Your task to perform on an android device: Show me popular videos on Youtube Image 0: 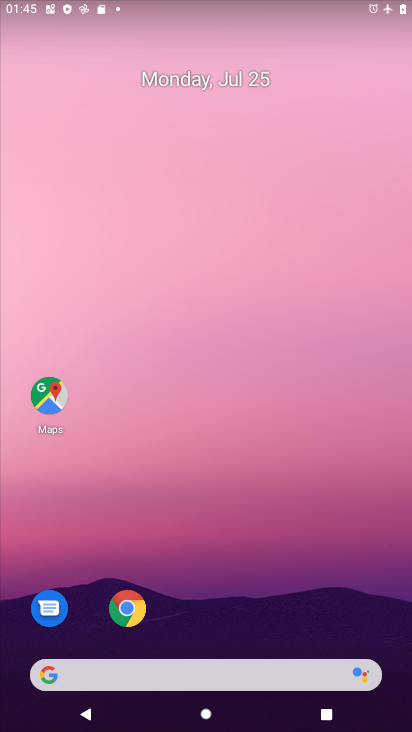
Step 0: drag from (204, 653) to (214, 69)
Your task to perform on an android device: Show me popular videos on Youtube Image 1: 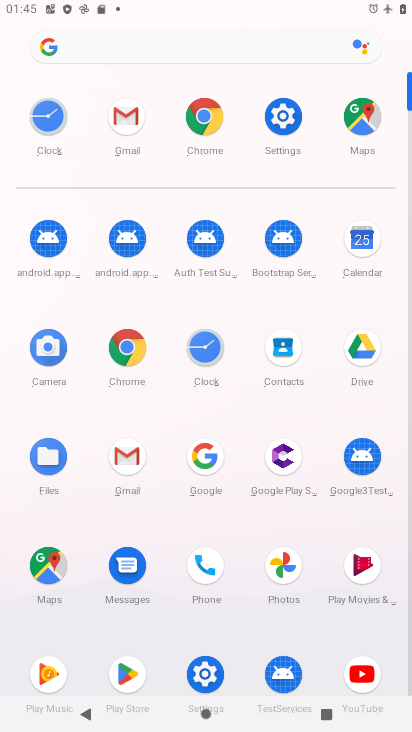
Step 1: click (360, 678)
Your task to perform on an android device: Show me popular videos on Youtube Image 2: 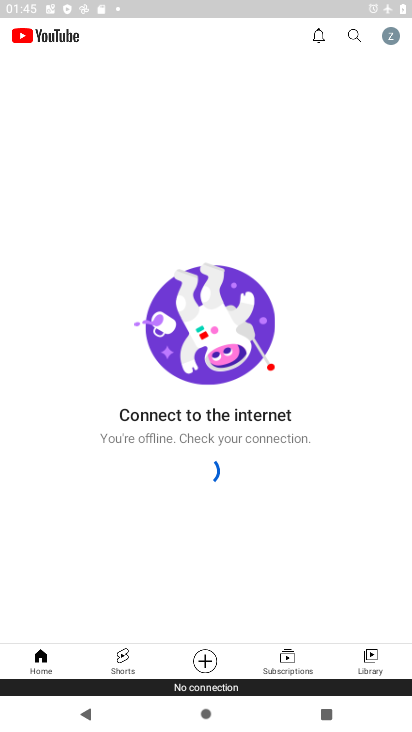
Step 2: click (358, 658)
Your task to perform on an android device: Show me popular videos on Youtube Image 3: 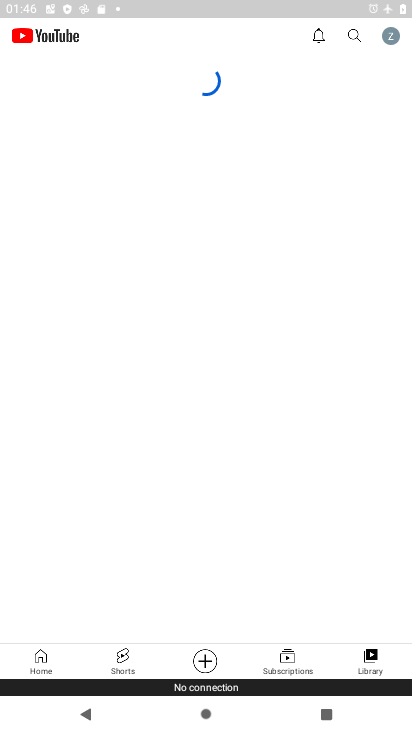
Step 3: click (351, 47)
Your task to perform on an android device: Show me popular videos on Youtube Image 4: 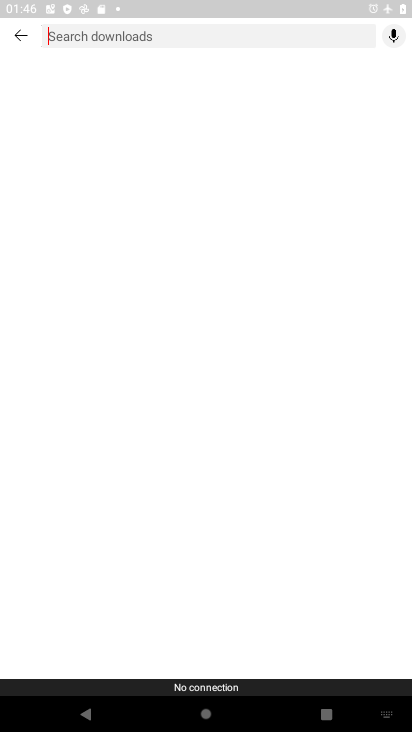
Step 4: task complete